Your task to perform on an android device: Open settings on Google Maps Image 0: 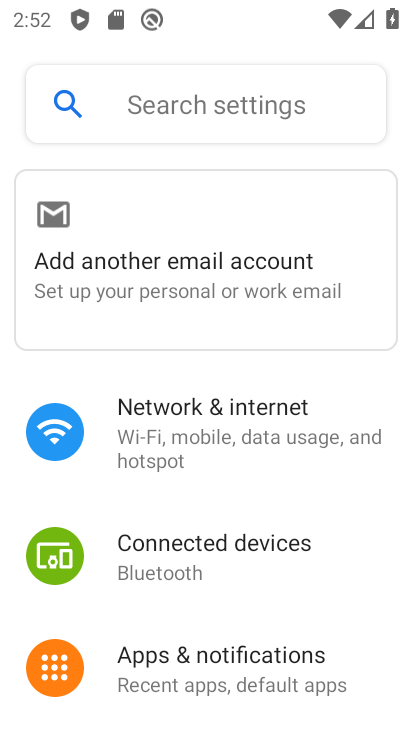
Step 0: press back button
Your task to perform on an android device: Open settings on Google Maps Image 1: 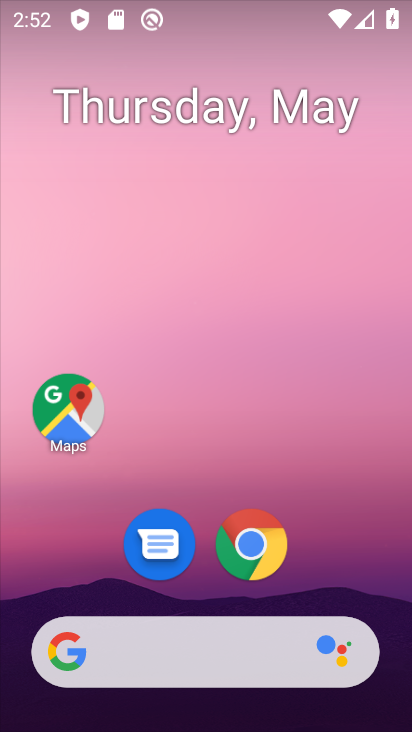
Step 1: drag from (191, 606) to (248, 118)
Your task to perform on an android device: Open settings on Google Maps Image 2: 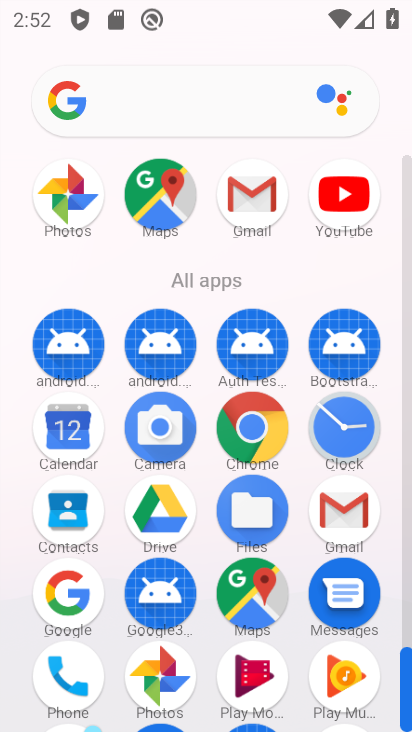
Step 2: drag from (215, 624) to (288, 343)
Your task to perform on an android device: Open settings on Google Maps Image 3: 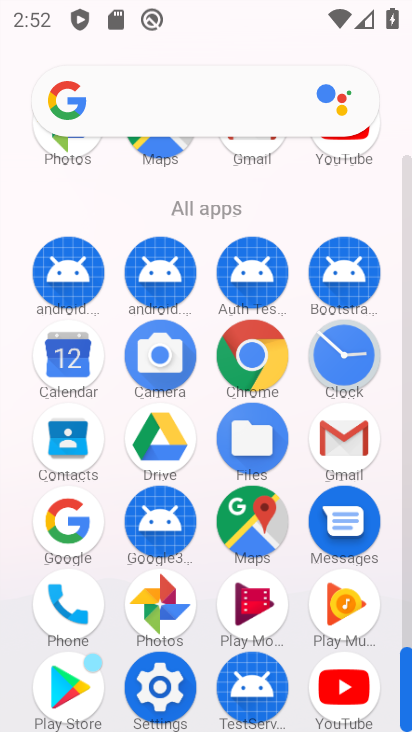
Step 3: click (251, 531)
Your task to perform on an android device: Open settings on Google Maps Image 4: 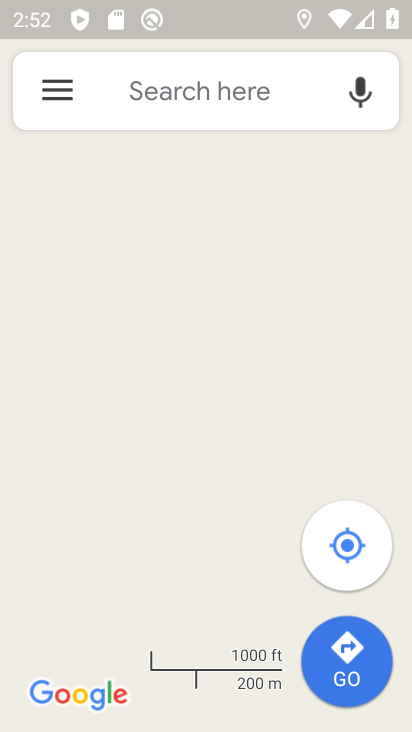
Step 4: click (69, 106)
Your task to perform on an android device: Open settings on Google Maps Image 5: 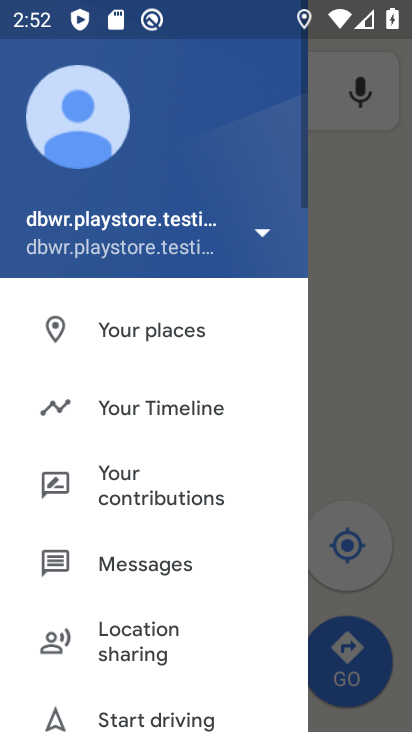
Step 5: drag from (147, 577) to (271, 169)
Your task to perform on an android device: Open settings on Google Maps Image 6: 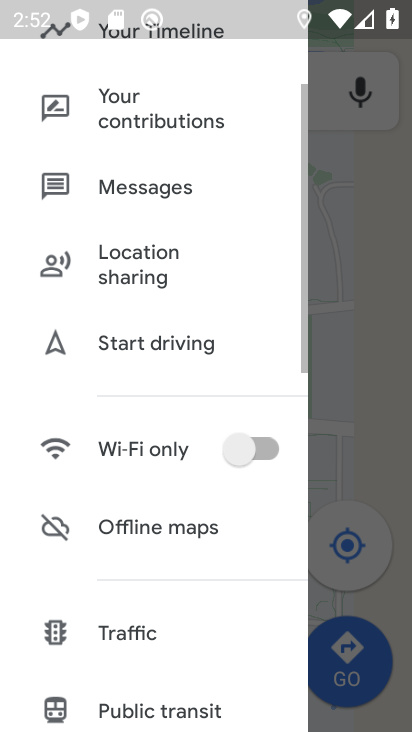
Step 6: drag from (129, 658) to (221, 299)
Your task to perform on an android device: Open settings on Google Maps Image 7: 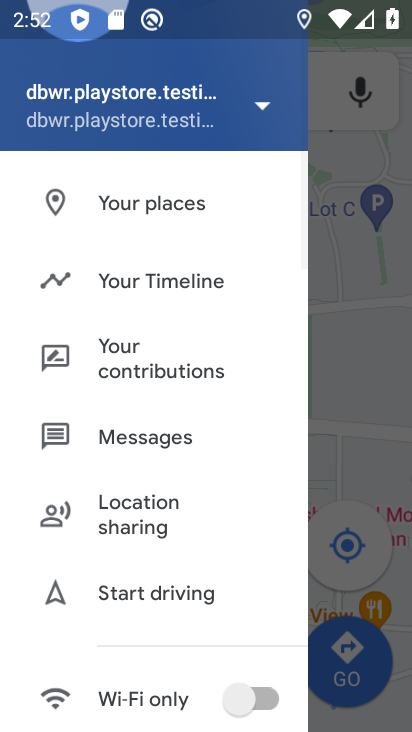
Step 7: drag from (137, 660) to (254, 178)
Your task to perform on an android device: Open settings on Google Maps Image 8: 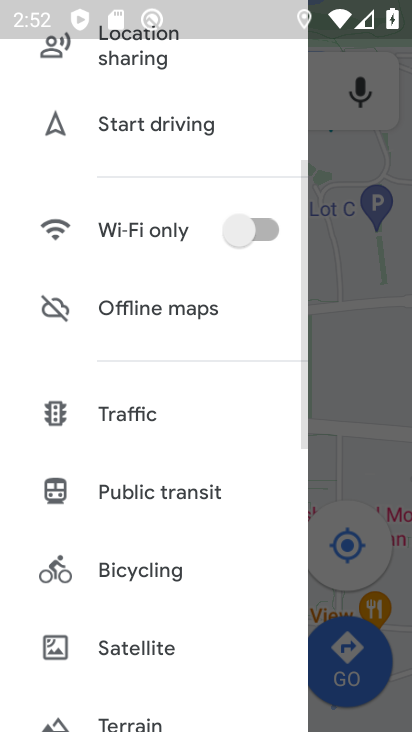
Step 8: drag from (169, 591) to (252, 252)
Your task to perform on an android device: Open settings on Google Maps Image 9: 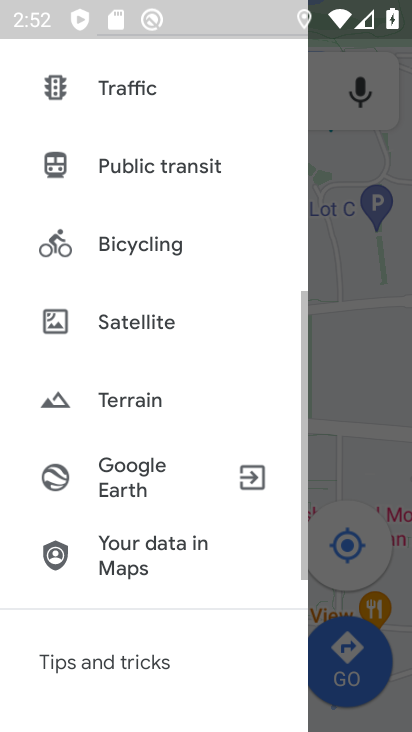
Step 9: drag from (163, 643) to (244, 243)
Your task to perform on an android device: Open settings on Google Maps Image 10: 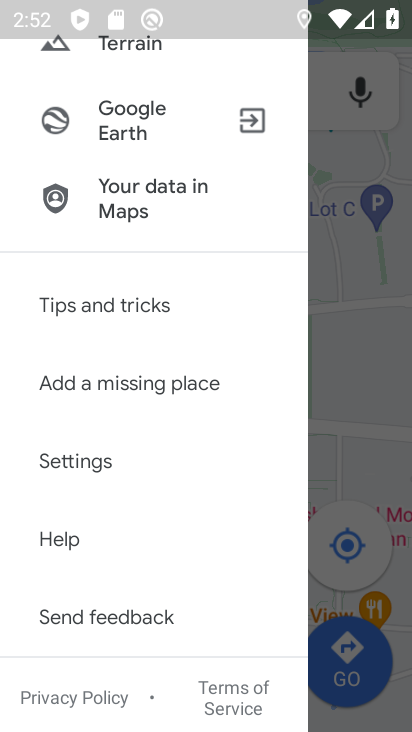
Step 10: click (126, 479)
Your task to perform on an android device: Open settings on Google Maps Image 11: 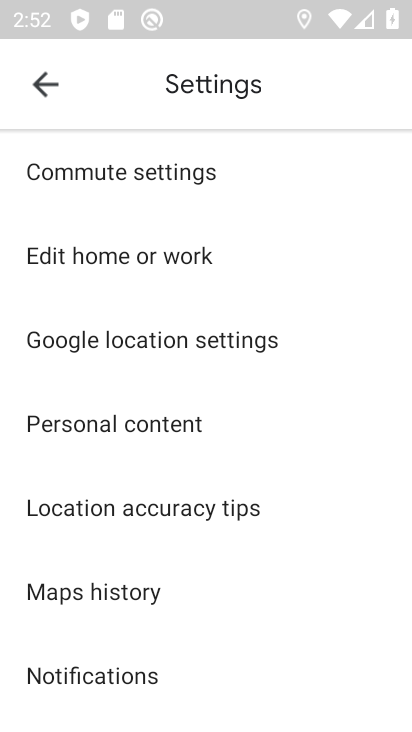
Step 11: task complete